Your task to perform on an android device: Open Chrome and go to settings Image 0: 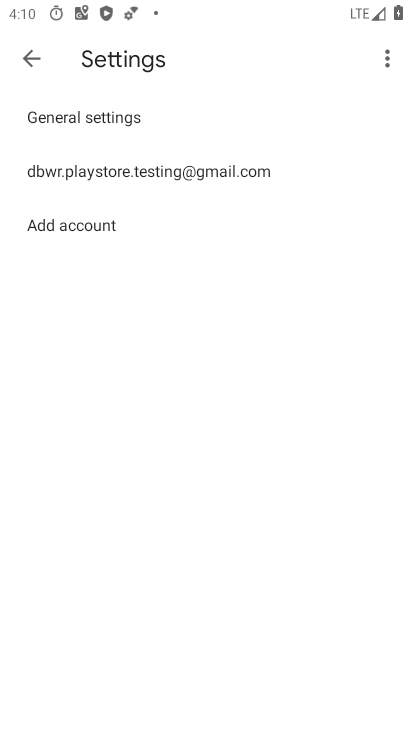
Step 0: click (26, 65)
Your task to perform on an android device: Open Chrome and go to settings Image 1: 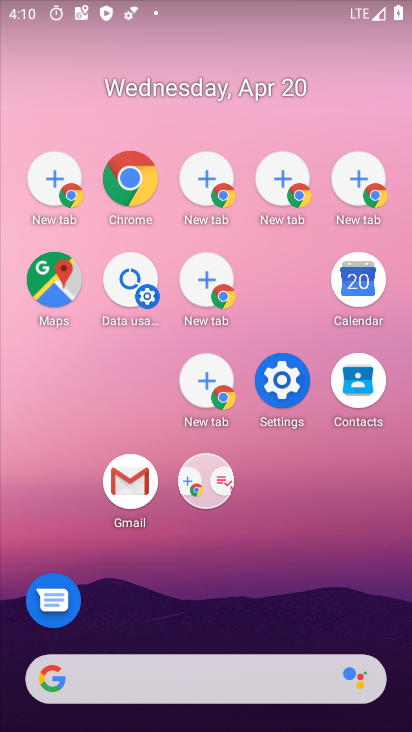
Step 1: click (141, 171)
Your task to perform on an android device: Open Chrome and go to settings Image 2: 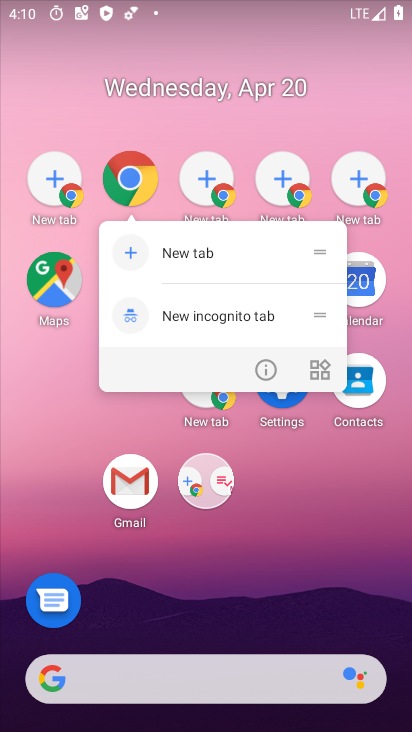
Step 2: click (137, 173)
Your task to perform on an android device: Open Chrome and go to settings Image 3: 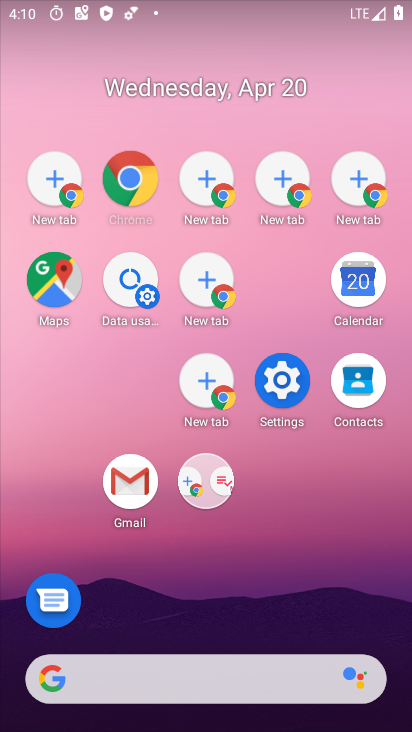
Step 3: click (134, 175)
Your task to perform on an android device: Open Chrome and go to settings Image 4: 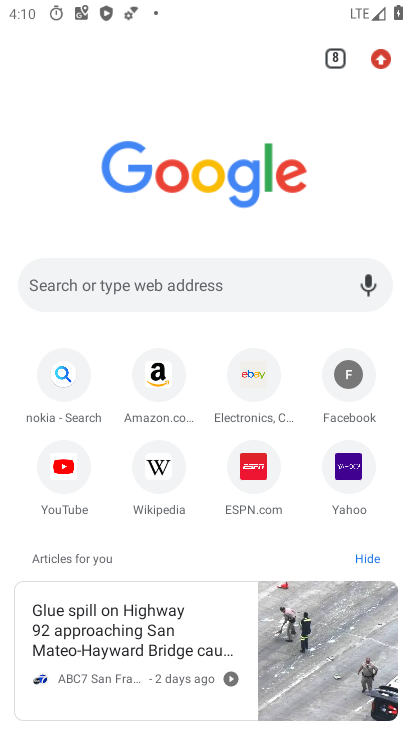
Step 4: click (381, 55)
Your task to perform on an android device: Open Chrome and go to settings Image 5: 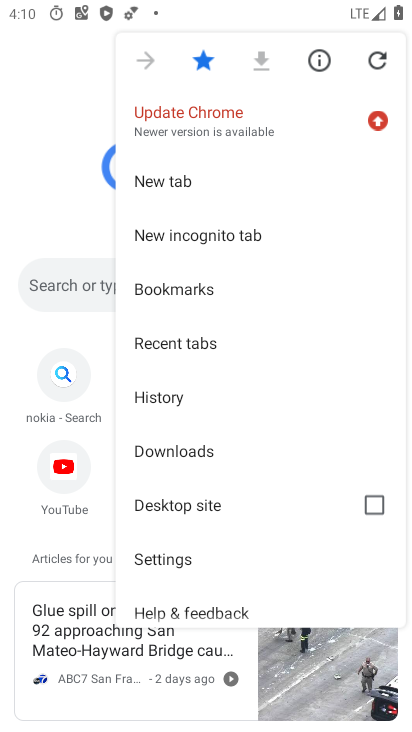
Step 5: click (171, 555)
Your task to perform on an android device: Open Chrome and go to settings Image 6: 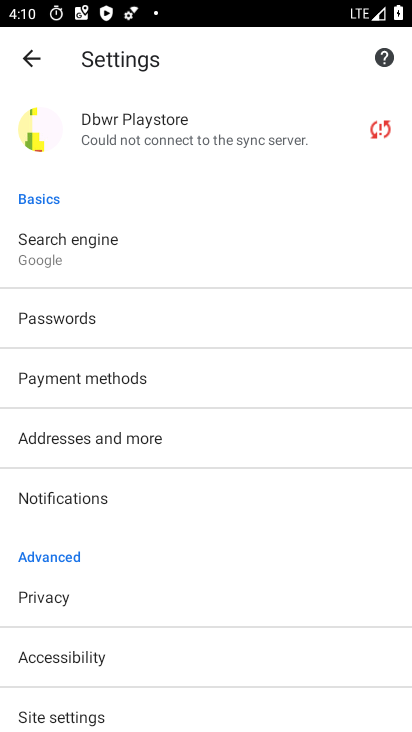
Step 6: task complete